Your task to perform on an android device: Go to location settings Image 0: 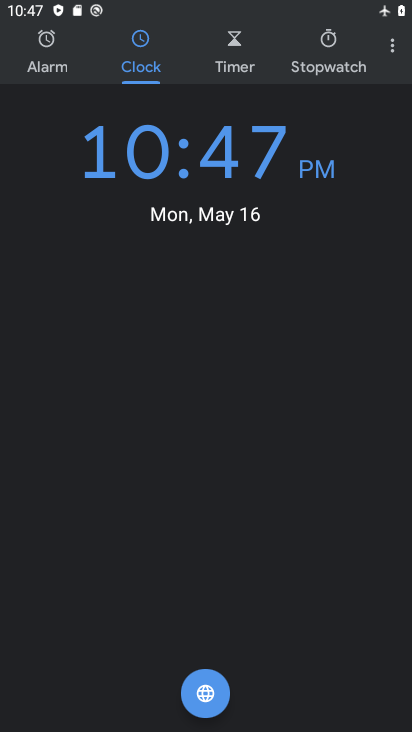
Step 0: press home button
Your task to perform on an android device: Go to location settings Image 1: 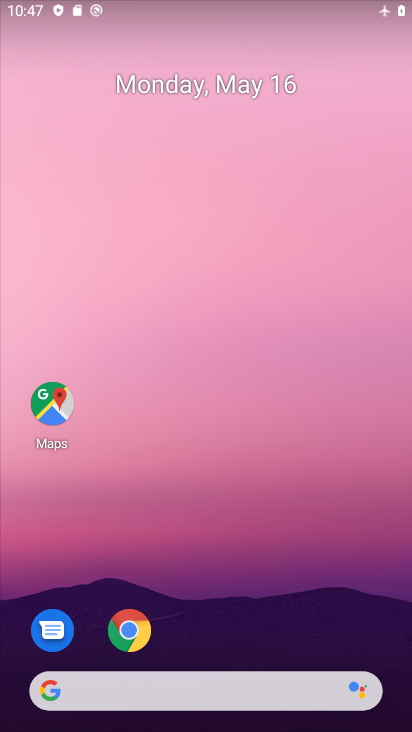
Step 1: drag from (277, 644) to (170, 261)
Your task to perform on an android device: Go to location settings Image 2: 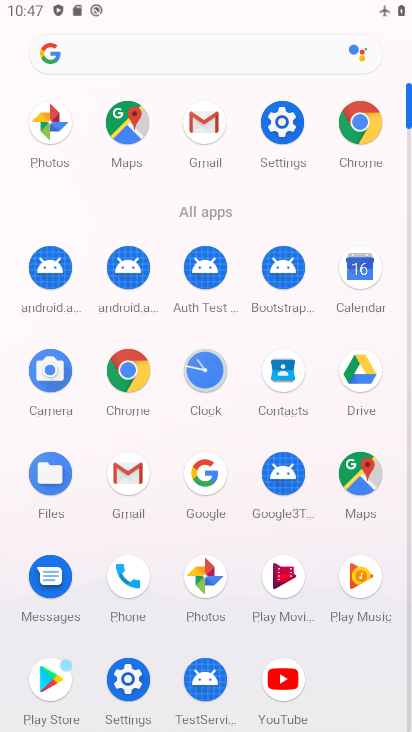
Step 2: click (300, 119)
Your task to perform on an android device: Go to location settings Image 3: 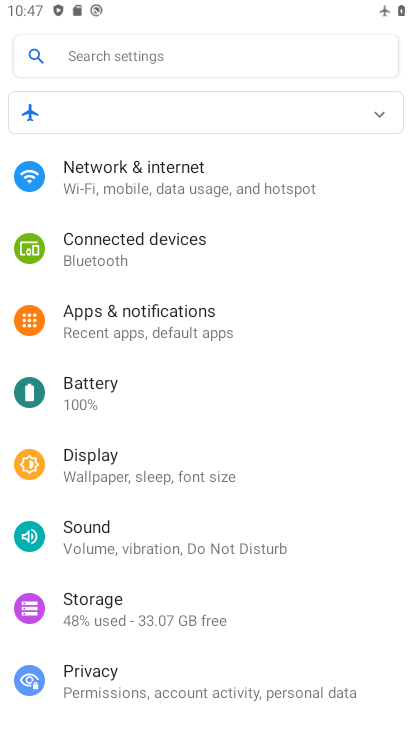
Step 3: drag from (232, 644) to (251, 263)
Your task to perform on an android device: Go to location settings Image 4: 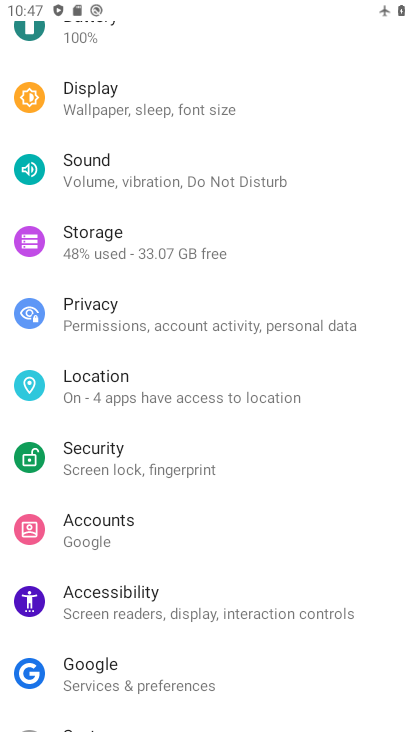
Step 4: click (214, 390)
Your task to perform on an android device: Go to location settings Image 5: 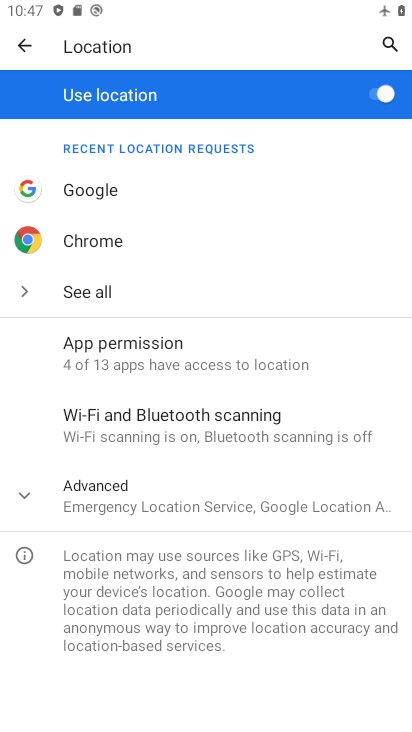
Step 5: task complete